Your task to perform on an android device: Open battery settings Image 0: 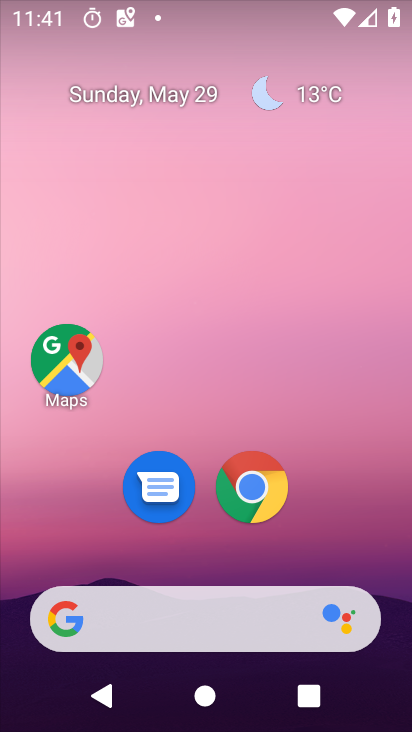
Step 0: drag from (386, 687) to (343, 75)
Your task to perform on an android device: Open battery settings Image 1: 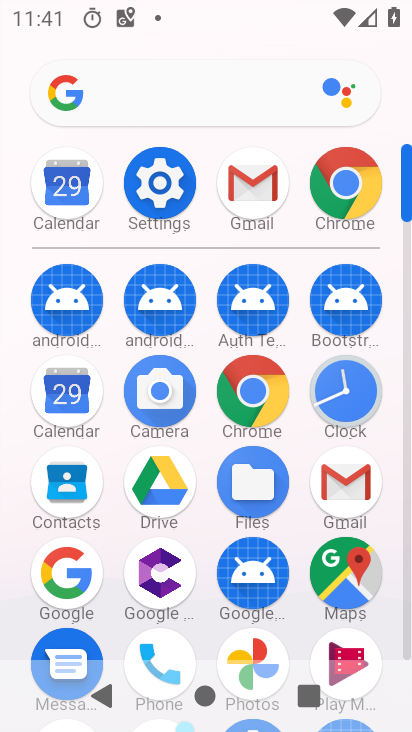
Step 1: click (155, 190)
Your task to perform on an android device: Open battery settings Image 2: 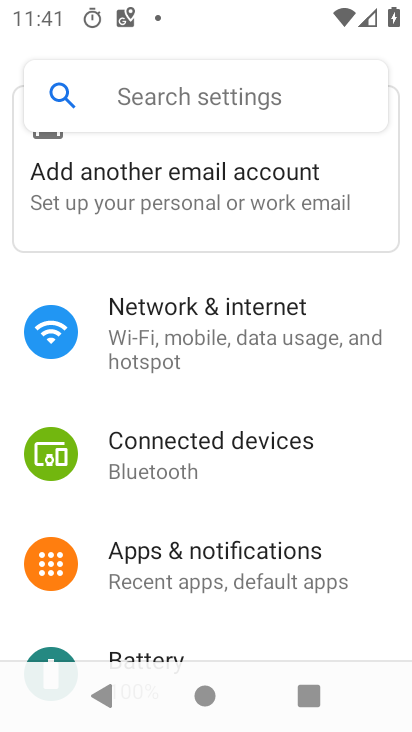
Step 2: click (141, 648)
Your task to perform on an android device: Open battery settings Image 3: 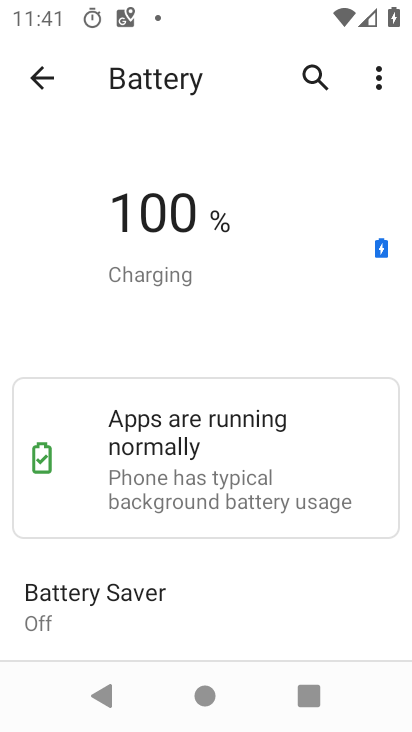
Step 3: click (377, 74)
Your task to perform on an android device: Open battery settings Image 4: 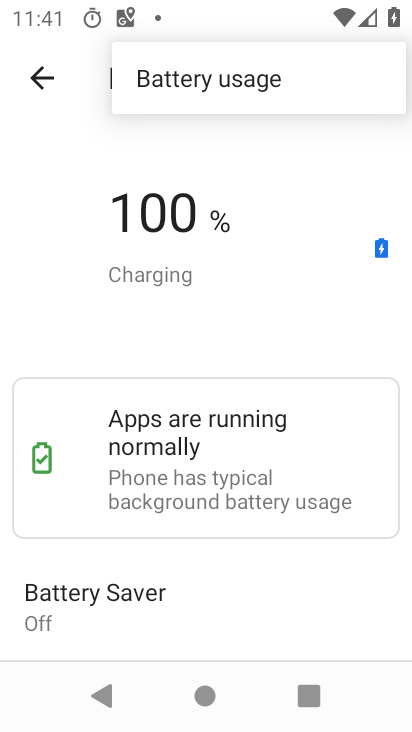
Step 4: click (302, 175)
Your task to perform on an android device: Open battery settings Image 5: 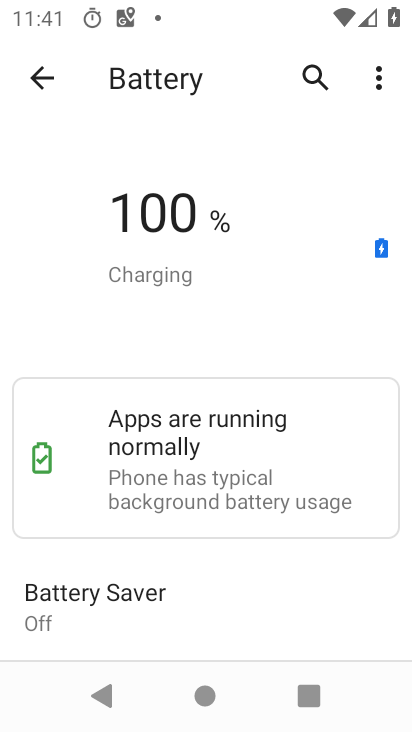
Step 5: task complete